Your task to perform on an android device: Go to wifi settings Image 0: 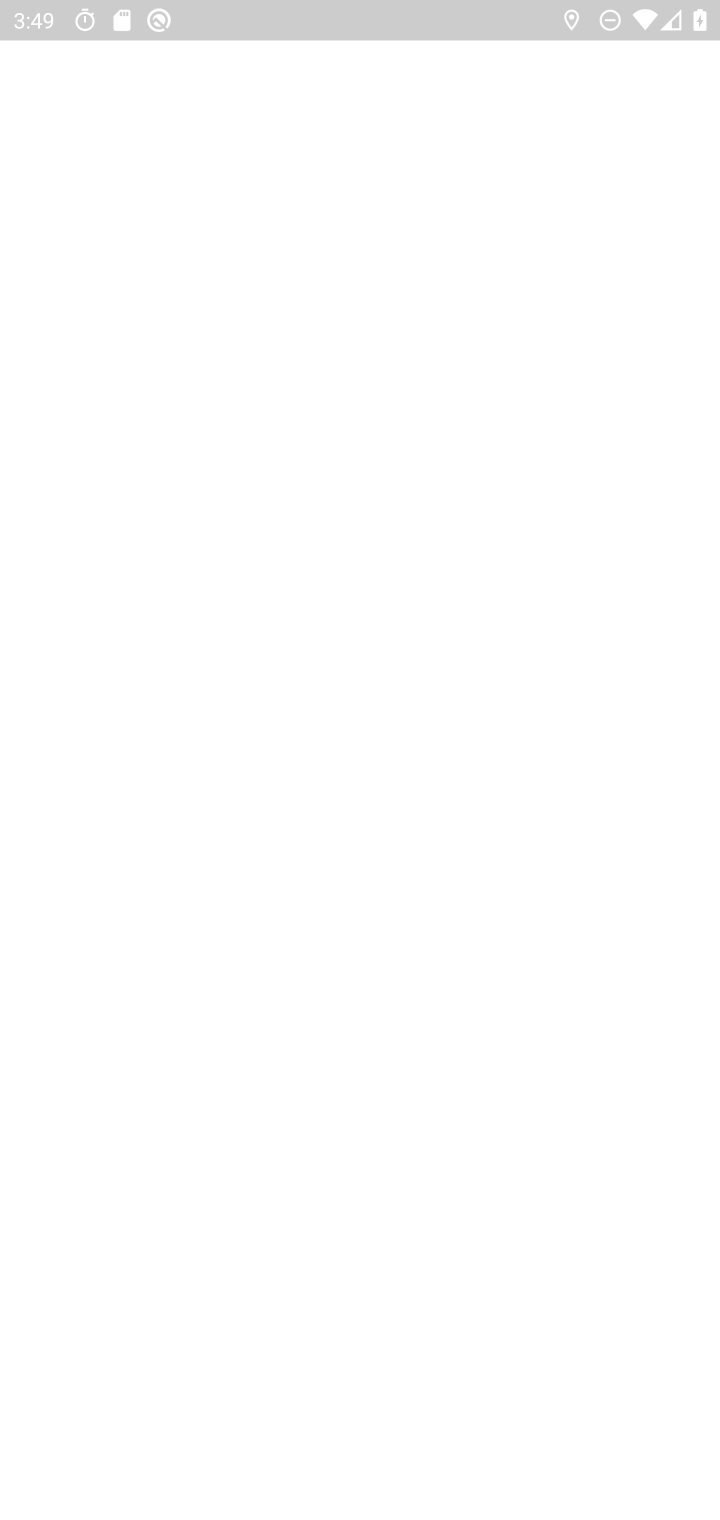
Step 0: press home button
Your task to perform on an android device: Go to wifi settings Image 1: 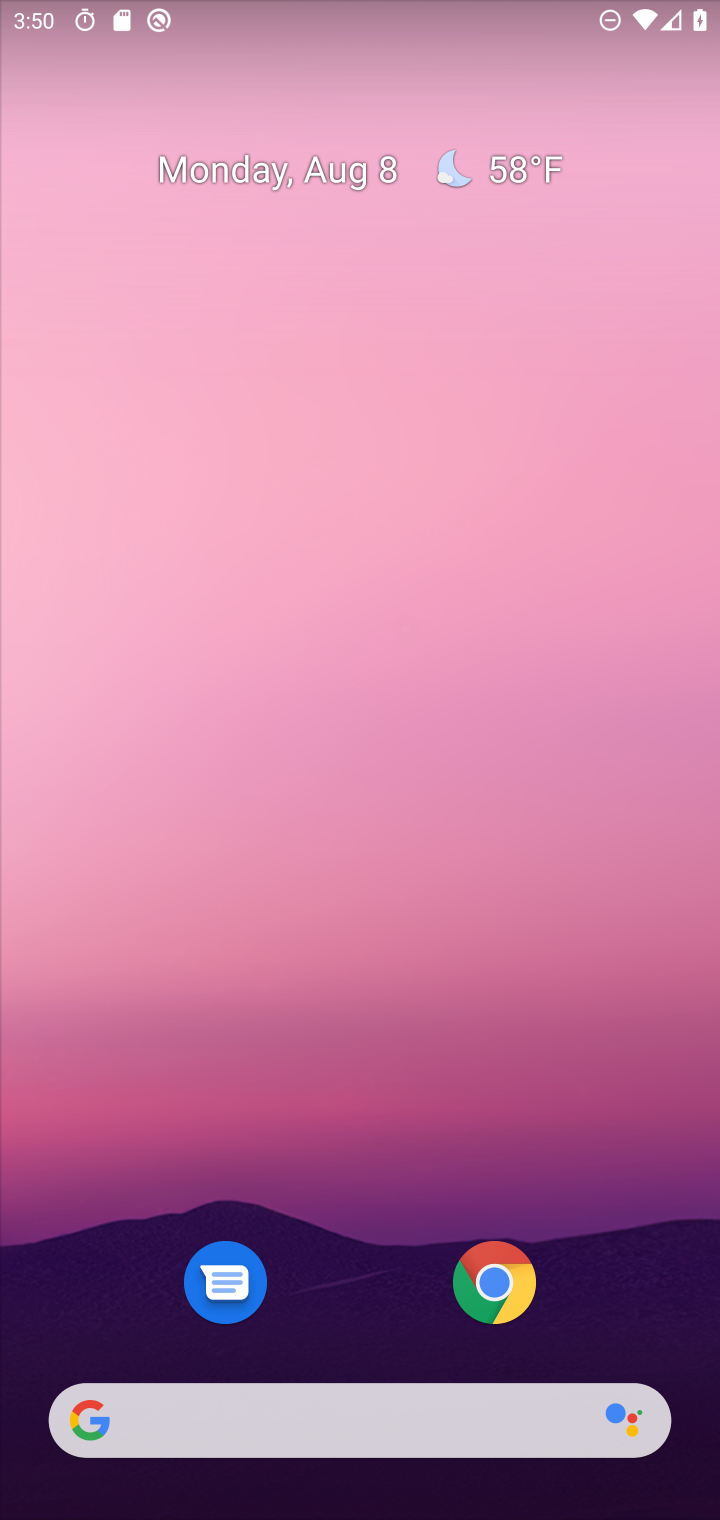
Step 1: drag from (334, 1288) to (466, 260)
Your task to perform on an android device: Go to wifi settings Image 2: 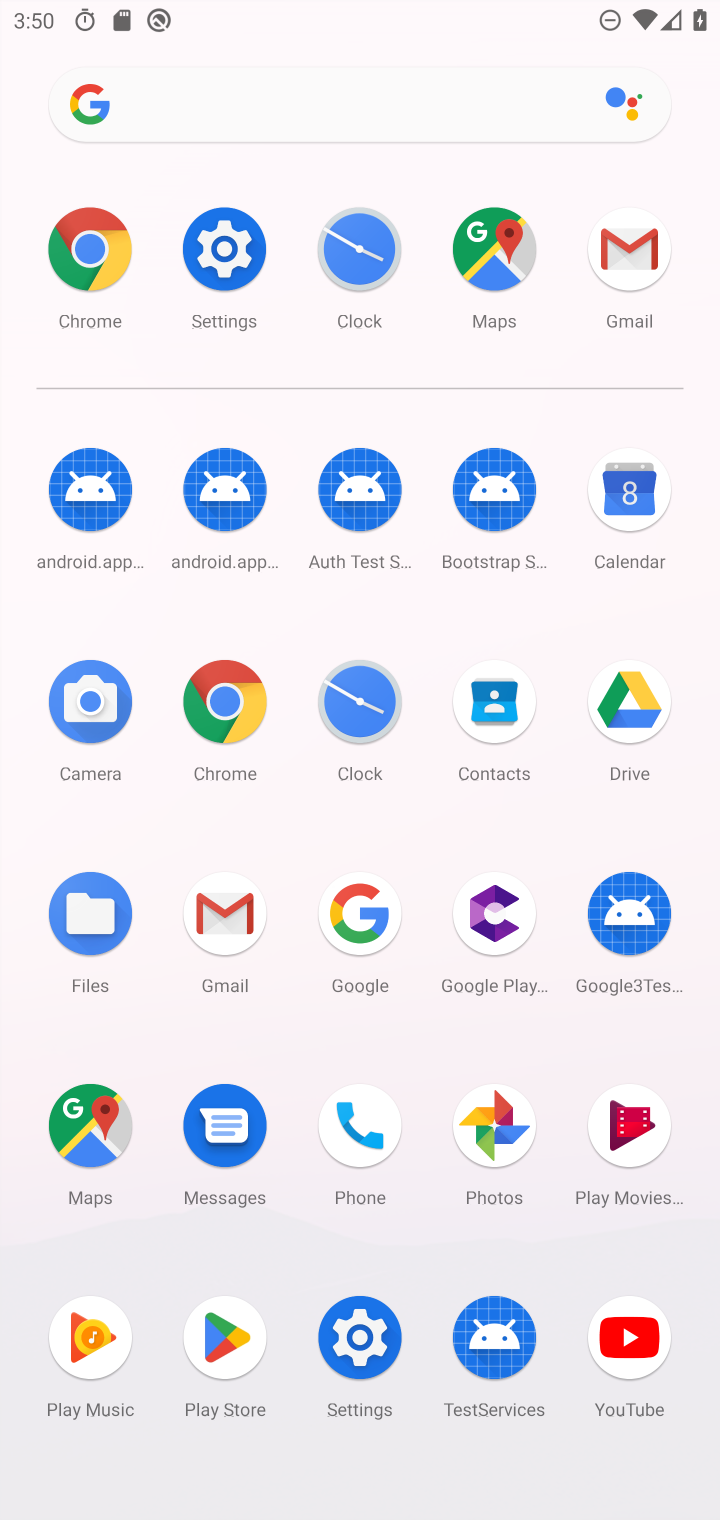
Step 2: click (221, 249)
Your task to perform on an android device: Go to wifi settings Image 3: 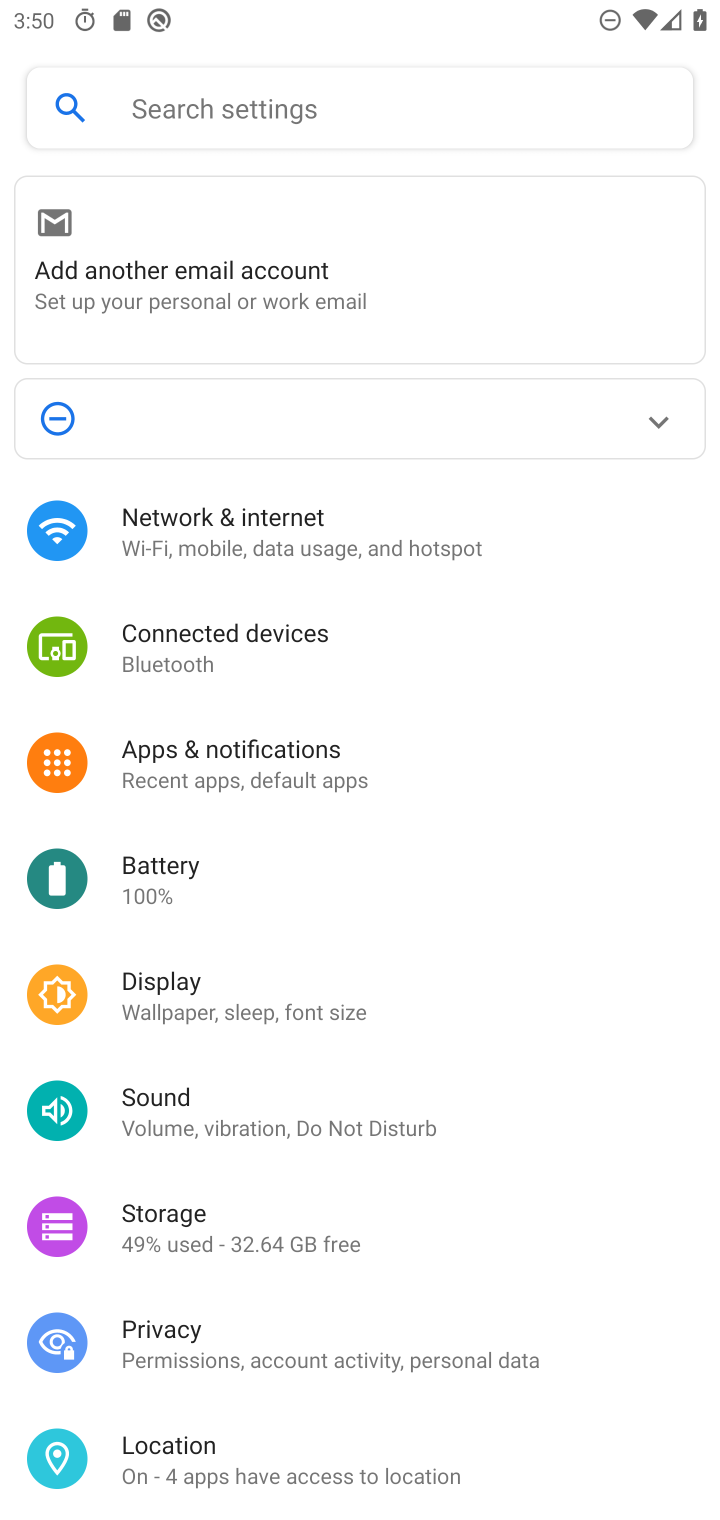
Step 3: click (281, 542)
Your task to perform on an android device: Go to wifi settings Image 4: 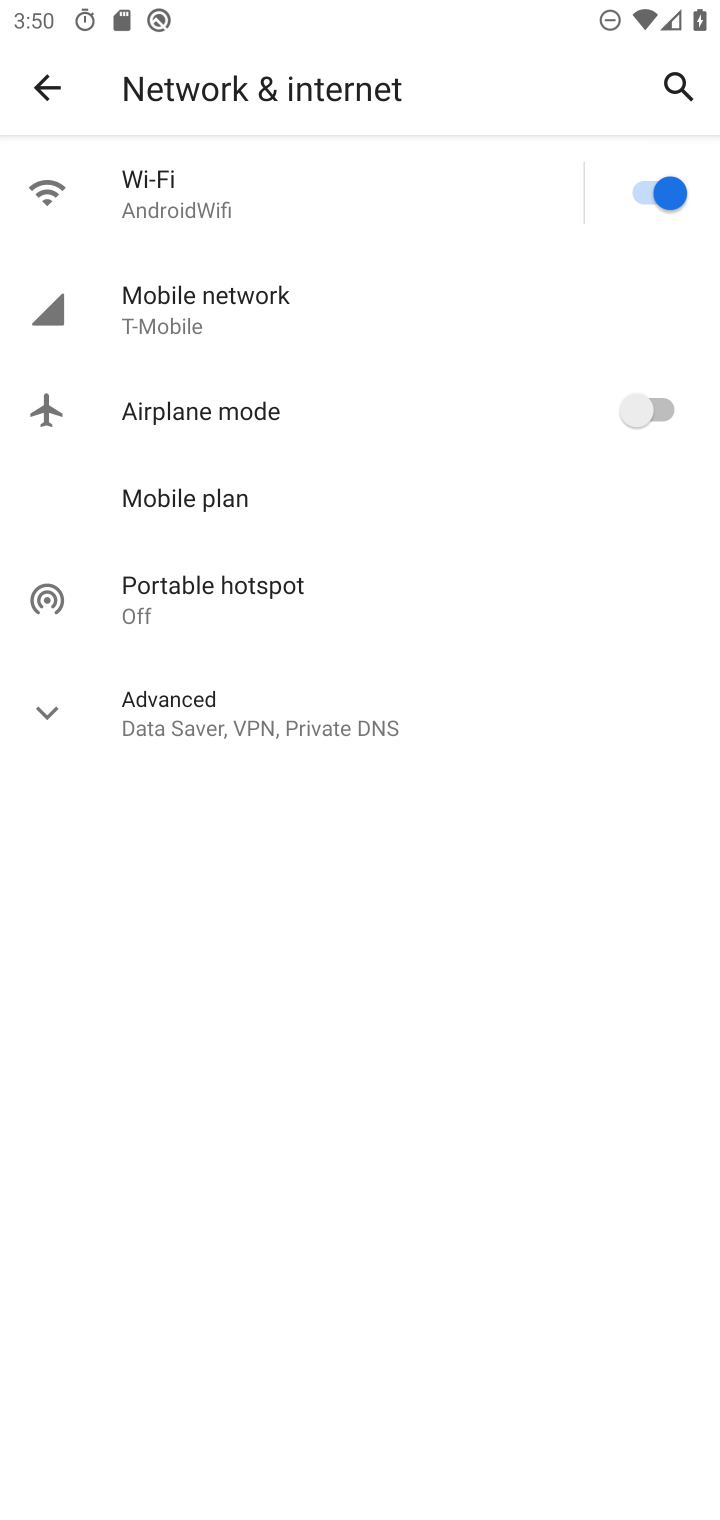
Step 4: click (454, 170)
Your task to perform on an android device: Go to wifi settings Image 5: 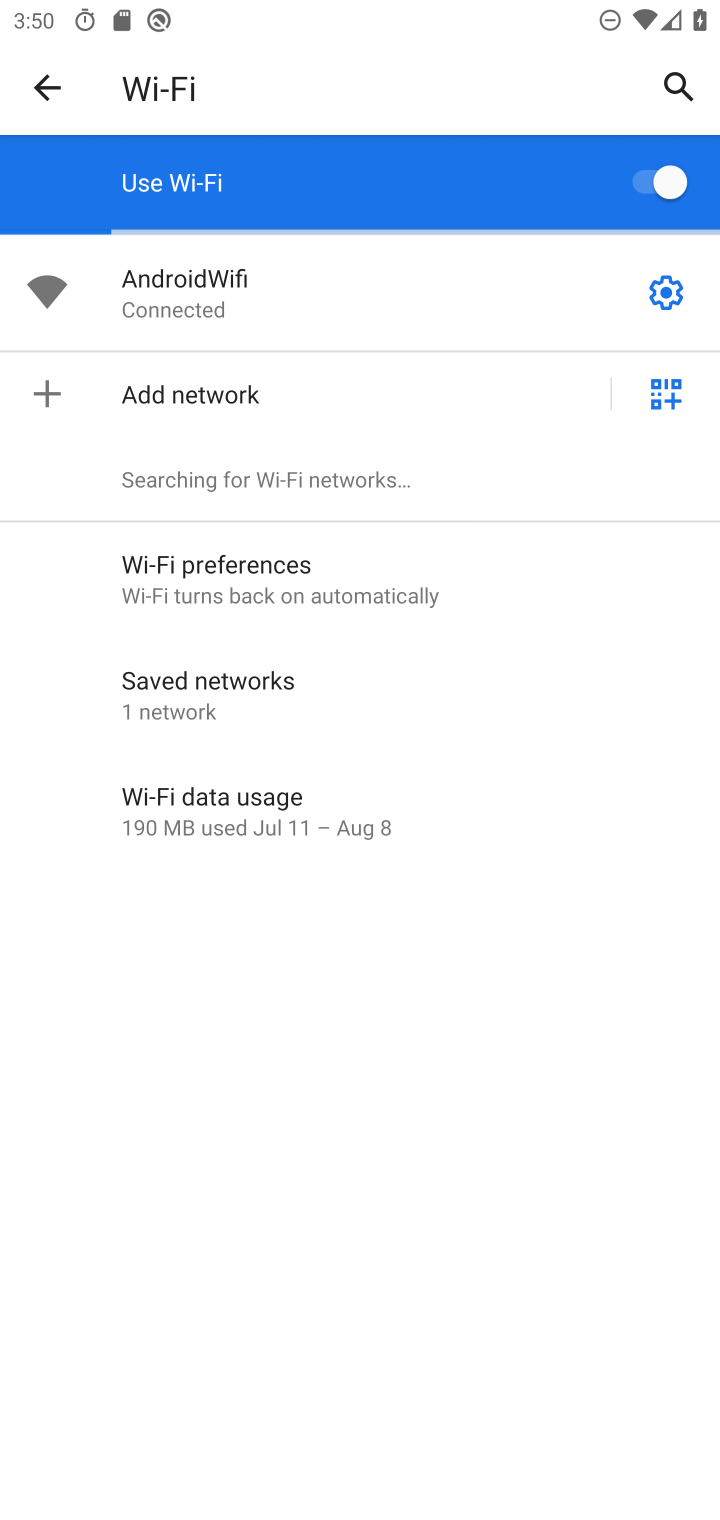
Step 5: click (659, 286)
Your task to perform on an android device: Go to wifi settings Image 6: 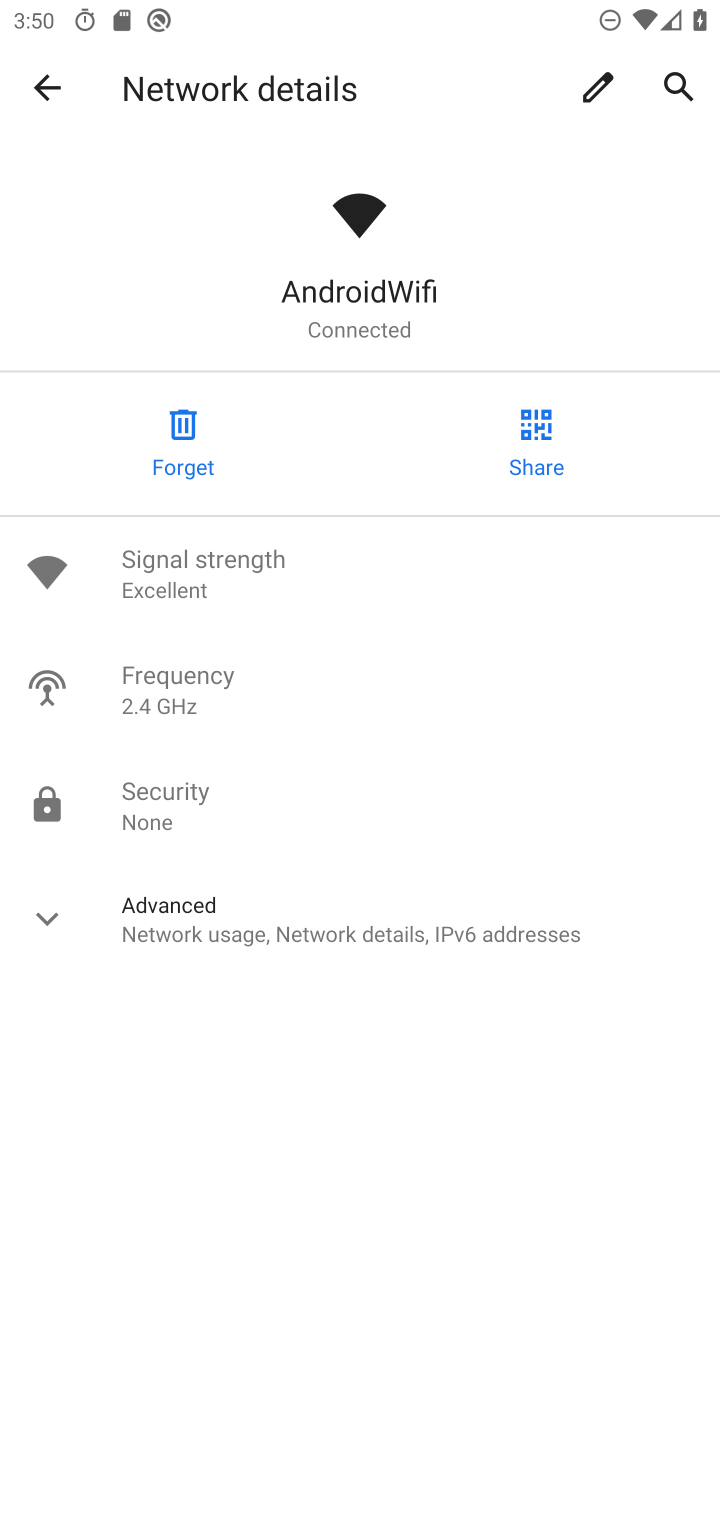
Step 6: task complete